Your task to perform on an android device: toggle javascript in the chrome app Image 0: 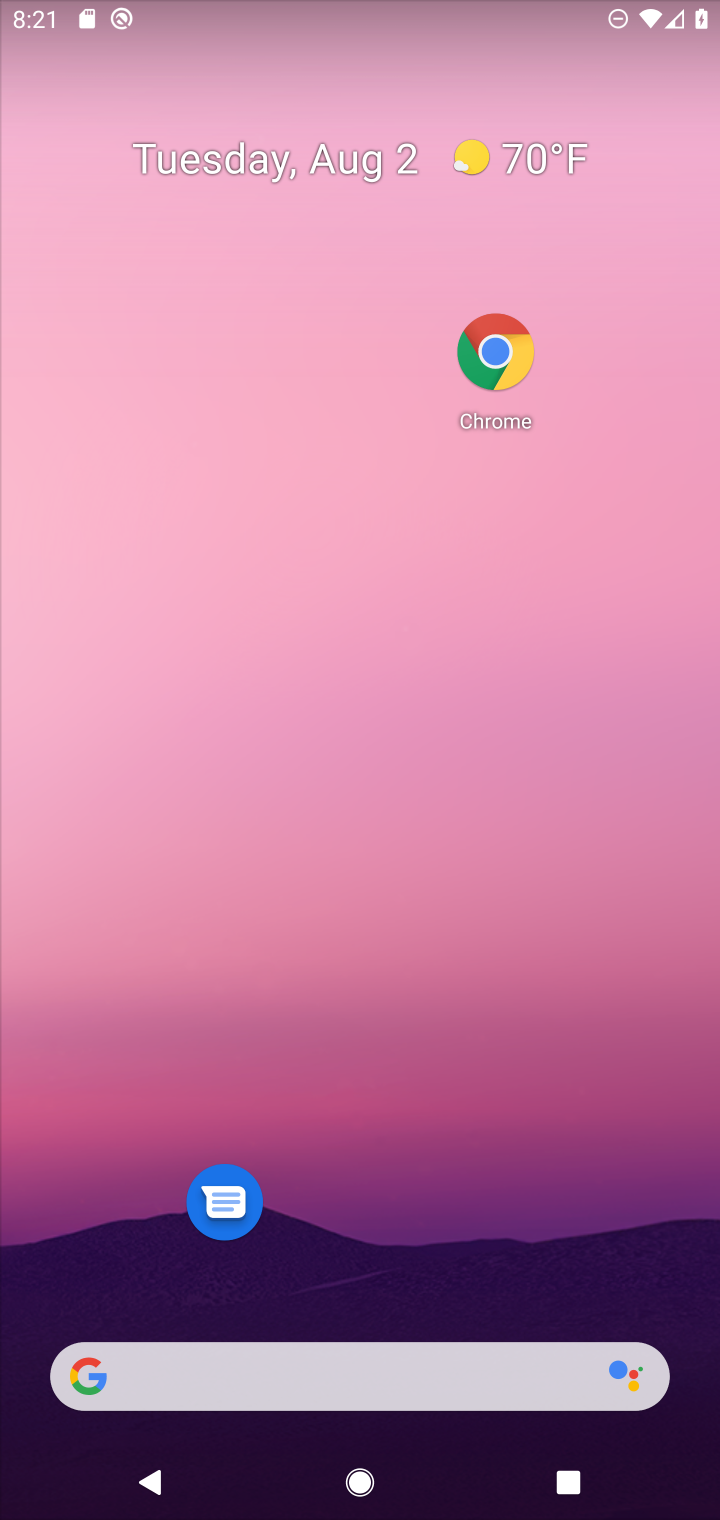
Step 0: click (496, 359)
Your task to perform on an android device: toggle javascript in the chrome app Image 1: 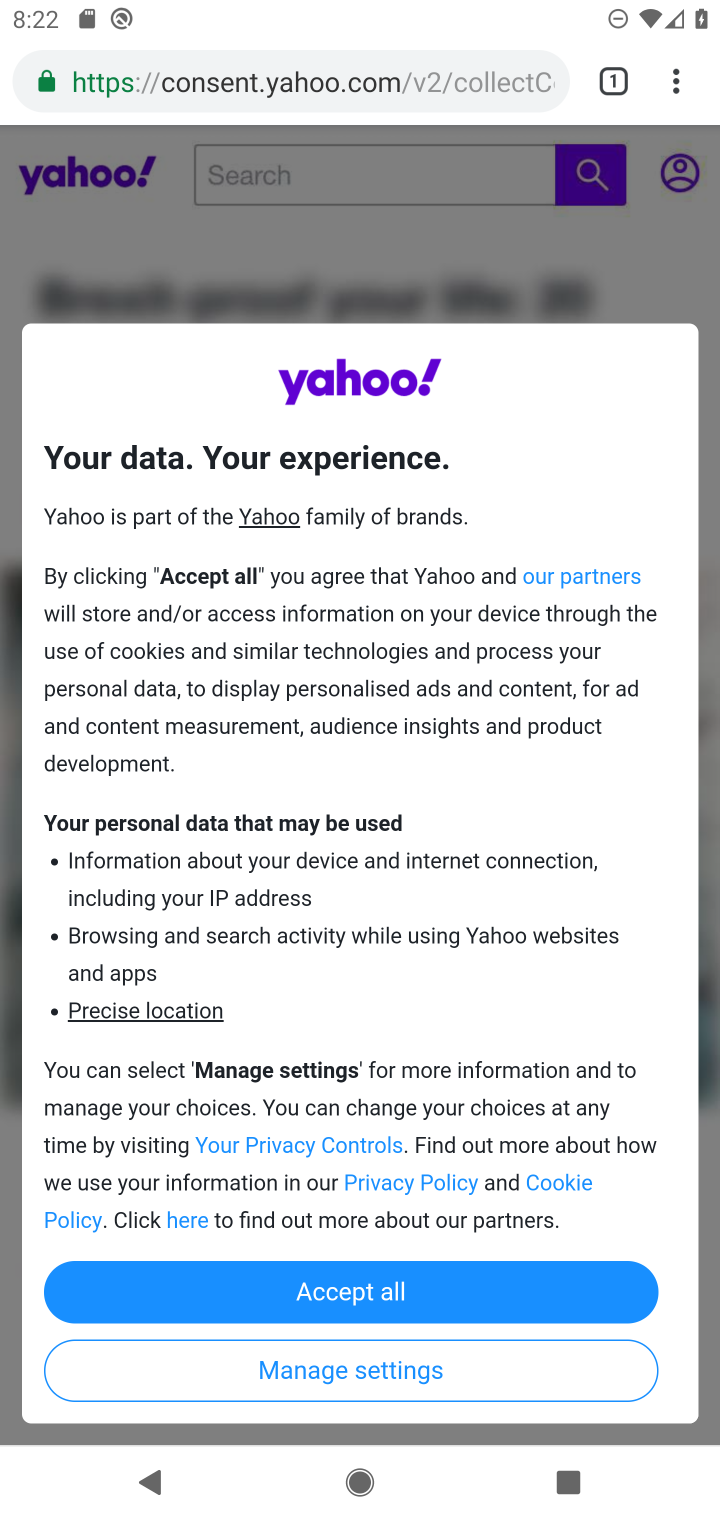
Step 1: click (680, 95)
Your task to perform on an android device: toggle javascript in the chrome app Image 2: 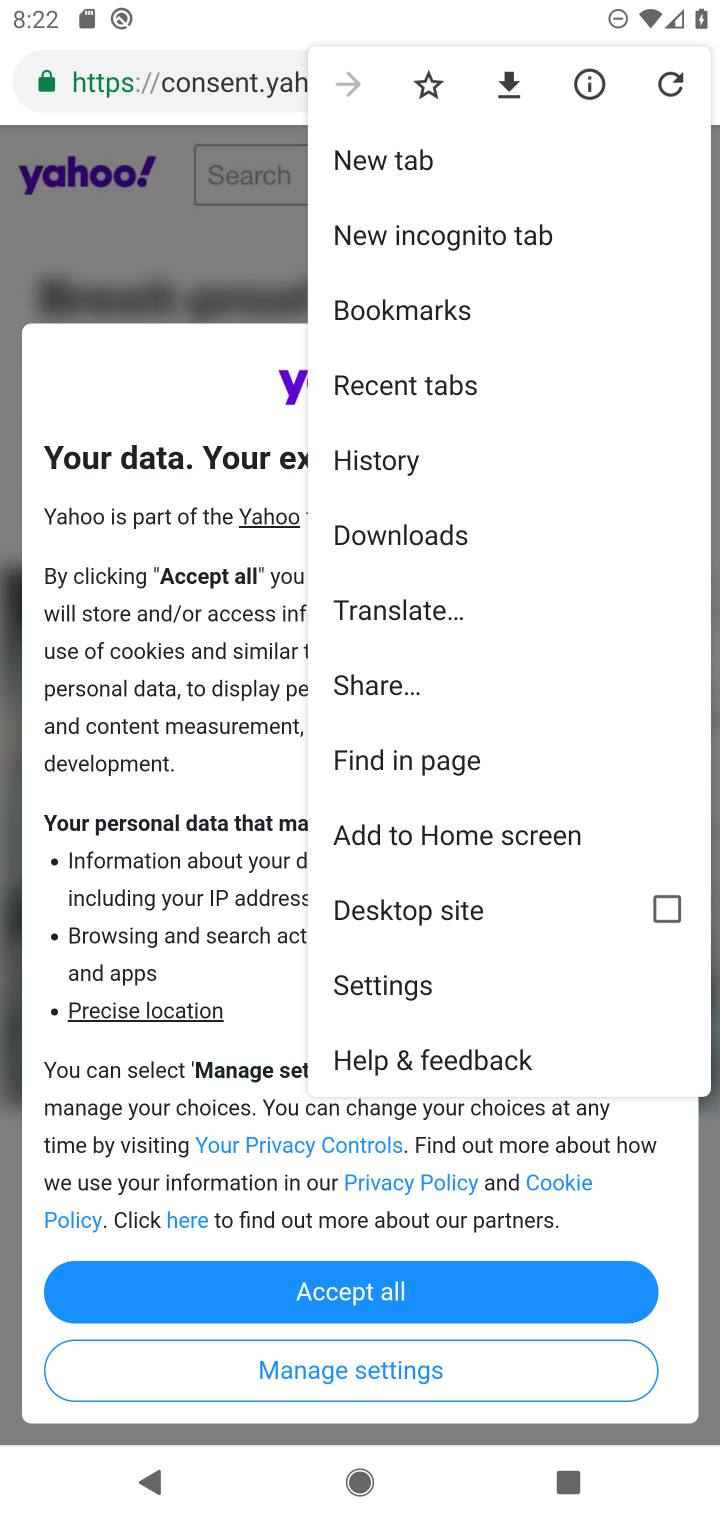
Step 2: click (395, 991)
Your task to perform on an android device: toggle javascript in the chrome app Image 3: 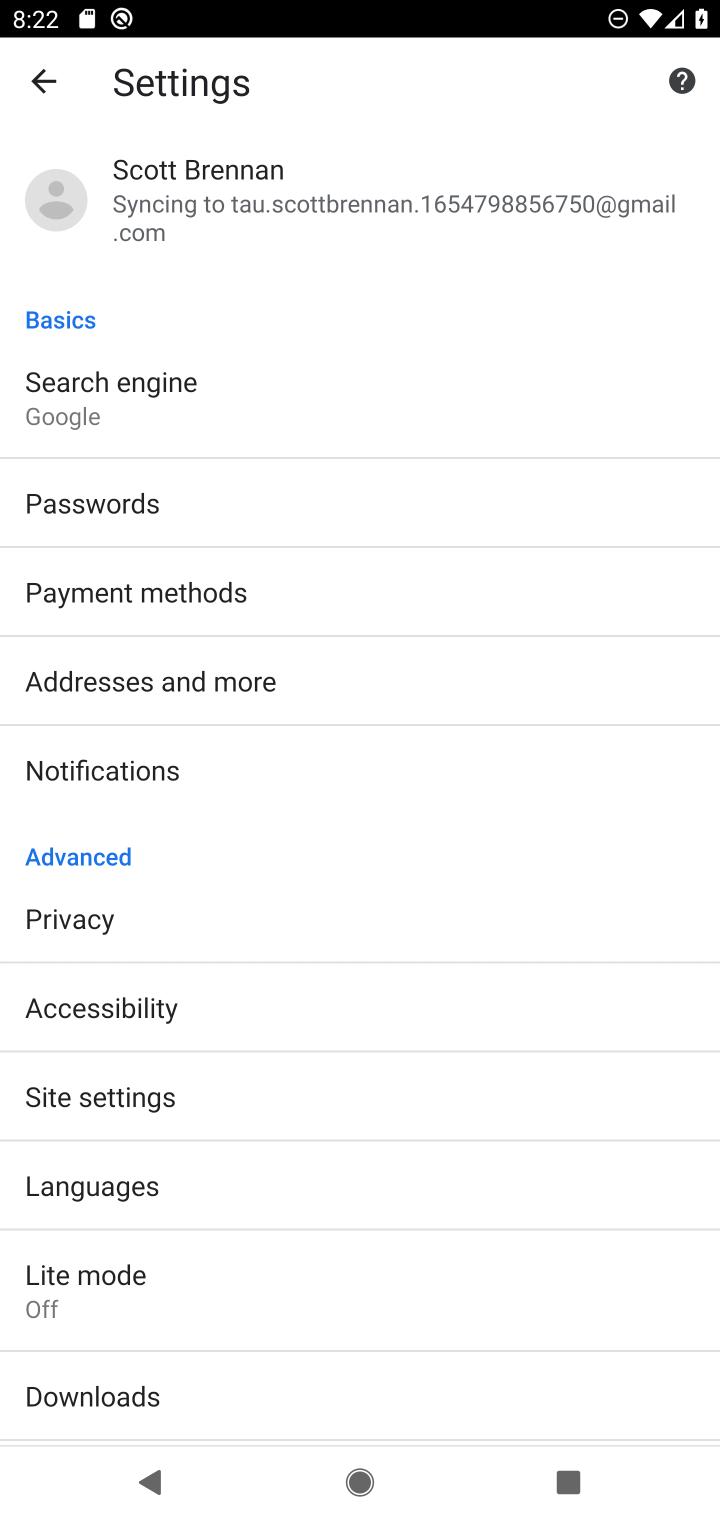
Step 3: click (134, 1095)
Your task to perform on an android device: toggle javascript in the chrome app Image 4: 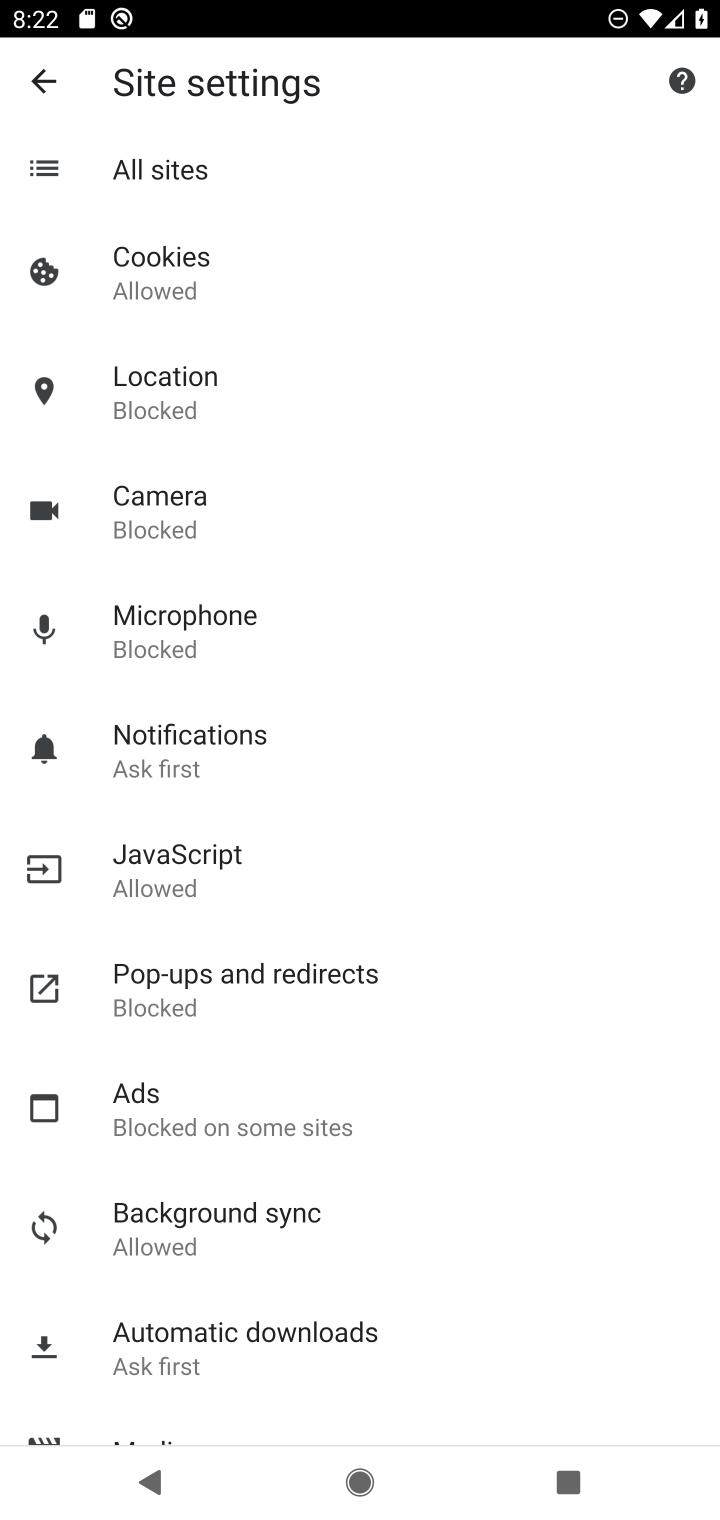
Step 4: click (179, 876)
Your task to perform on an android device: toggle javascript in the chrome app Image 5: 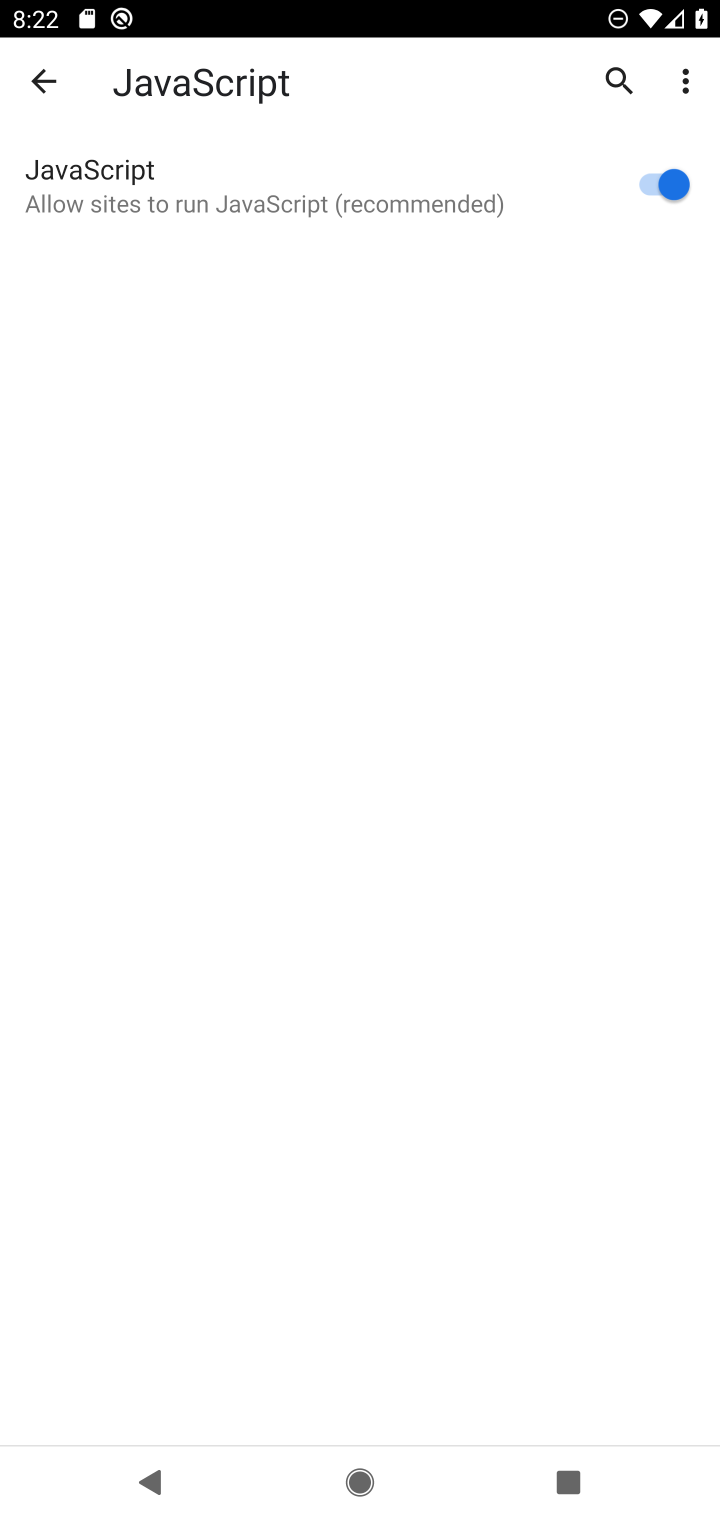
Step 5: click (671, 182)
Your task to perform on an android device: toggle javascript in the chrome app Image 6: 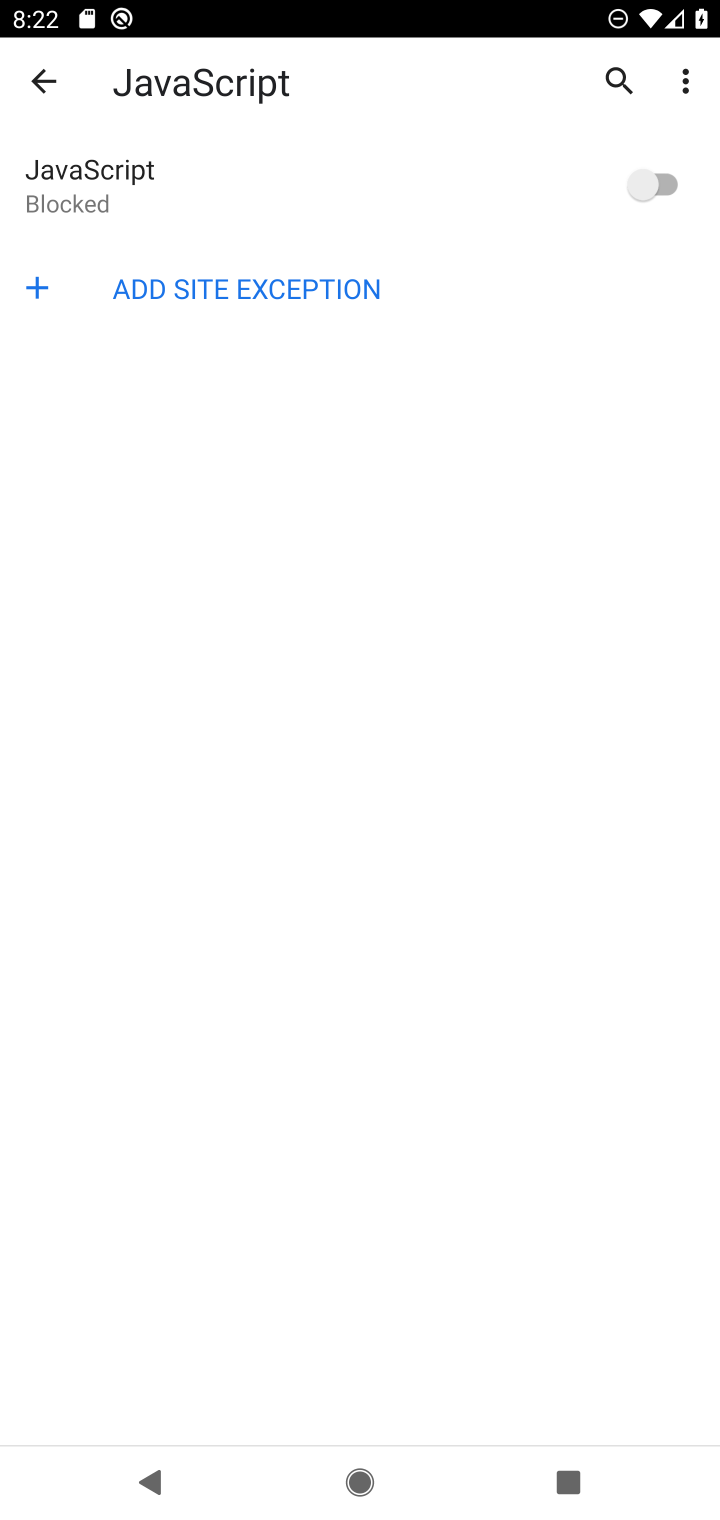
Step 6: task complete